Your task to perform on an android device: Search for Italian restaurants on Maps Image 0: 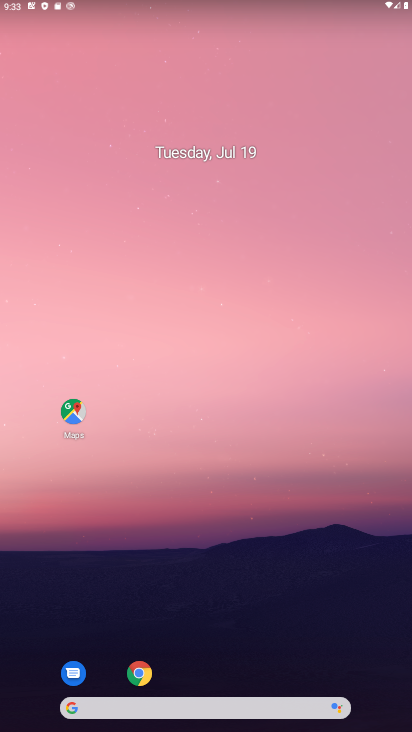
Step 0: click (82, 408)
Your task to perform on an android device: Search for Italian restaurants on Maps Image 1: 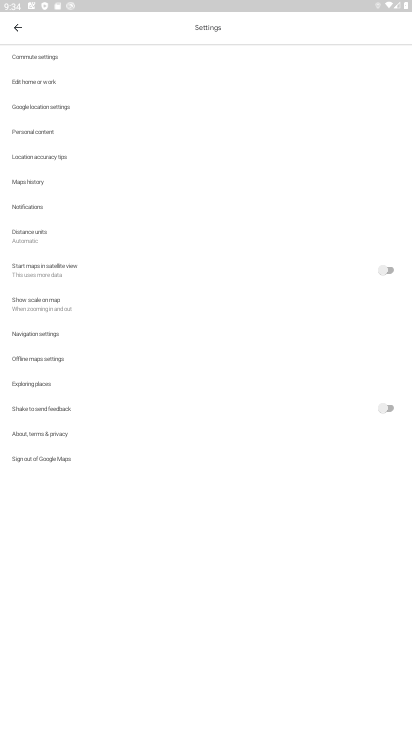
Step 1: click (16, 26)
Your task to perform on an android device: Search for Italian restaurants on Maps Image 2: 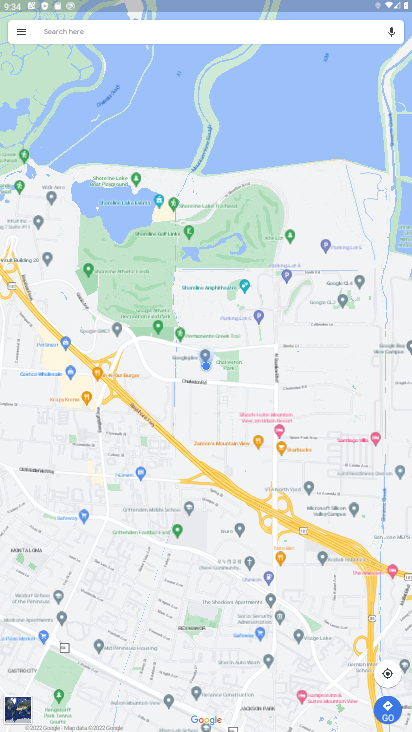
Step 2: click (83, 30)
Your task to perform on an android device: Search for Italian restaurants on Maps Image 3: 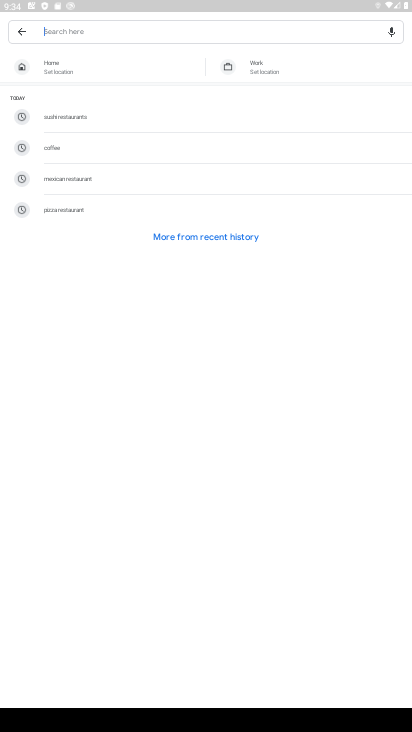
Step 3: type "Italian restaurants"
Your task to perform on an android device: Search for Italian restaurants on Maps Image 4: 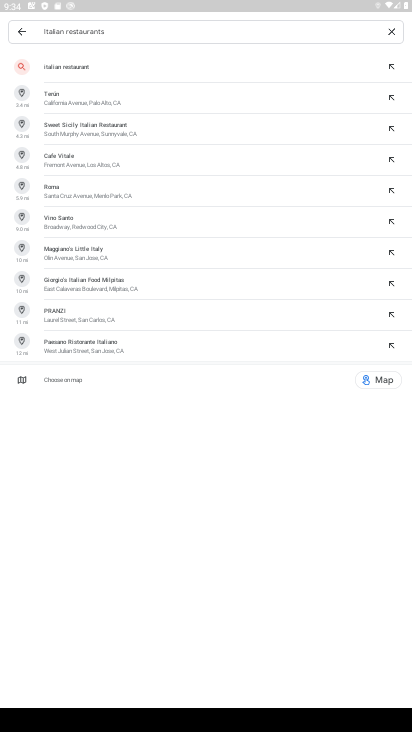
Step 4: click (83, 73)
Your task to perform on an android device: Search for Italian restaurants on Maps Image 5: 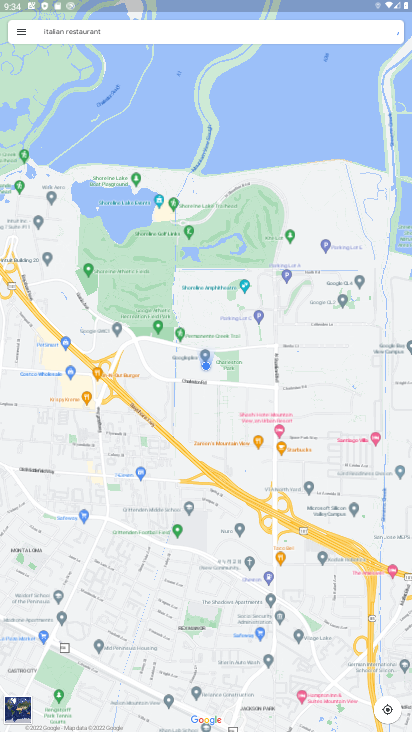
Step 5: click (49, 180)
Your task to perform on an android device: Search for Italian restaurants on Maps Image 6: 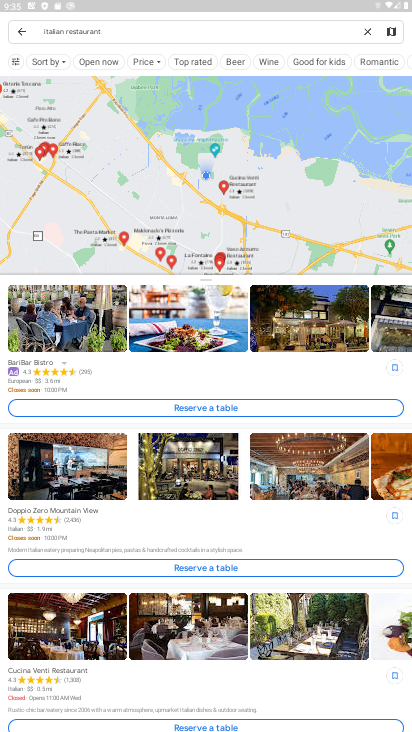
Step 6: task complete